Your task to perform on an android device: Search for a dining table on Crate & Barrel Image 0: 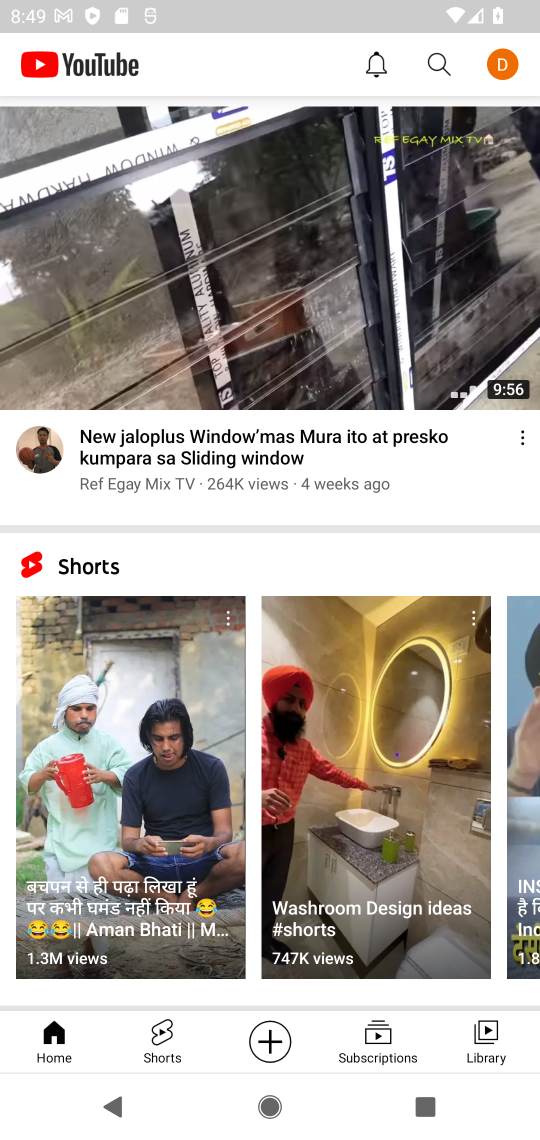
Step 0: press home button
Your task to perform on an android device: Search for a dining table on Crate & Barrel Image 1: 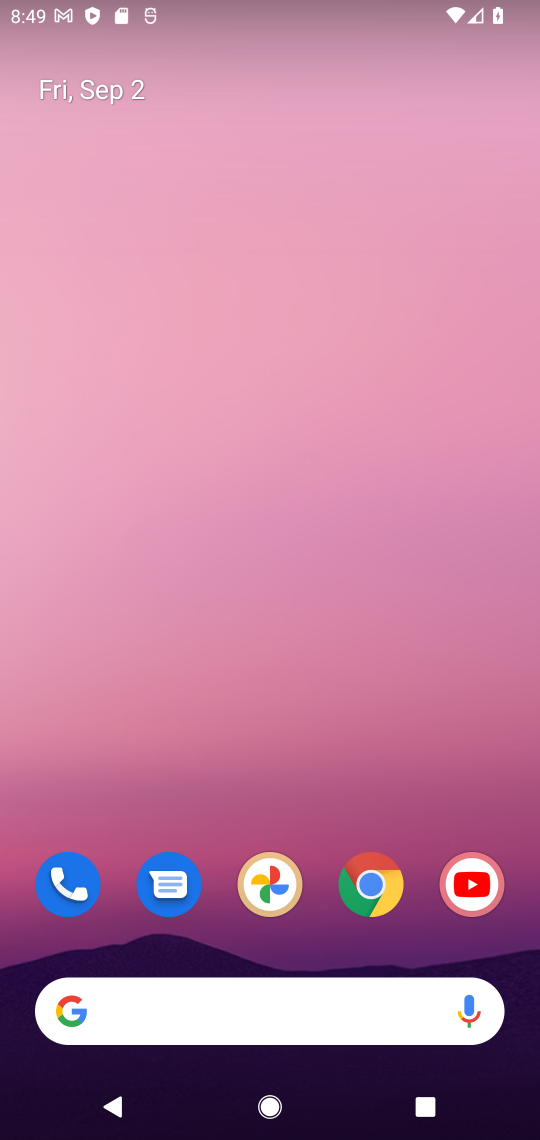
Step 1: click (384, 886)
Your task to perform on an android device: Search for a dining table on Crate & Barrel Image 2: 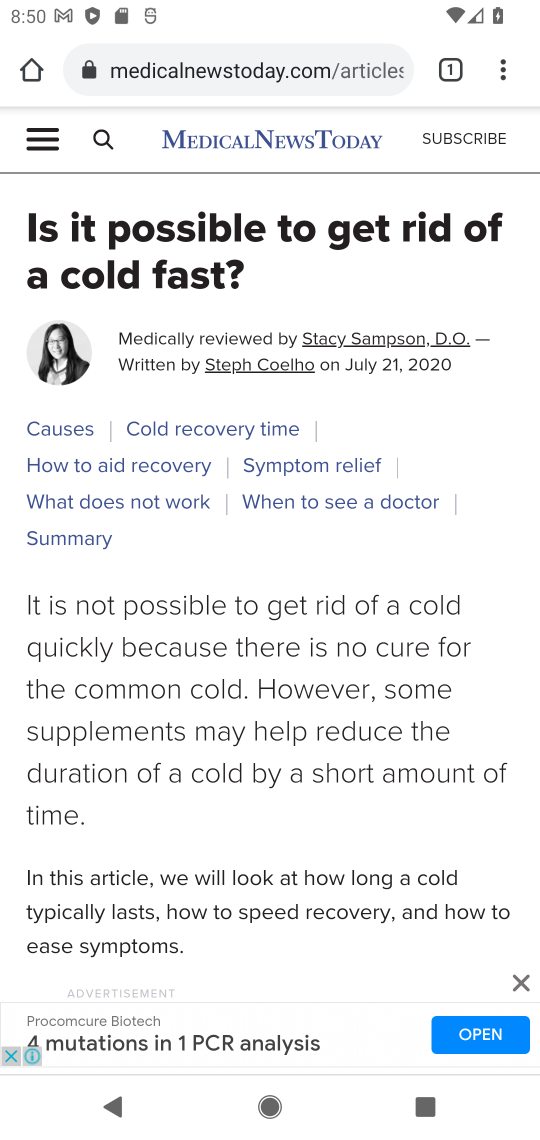
Step 2: click (281, 66)
Your task to perform on an android device: Search for a dining table on Crate & Barrel Image 3: 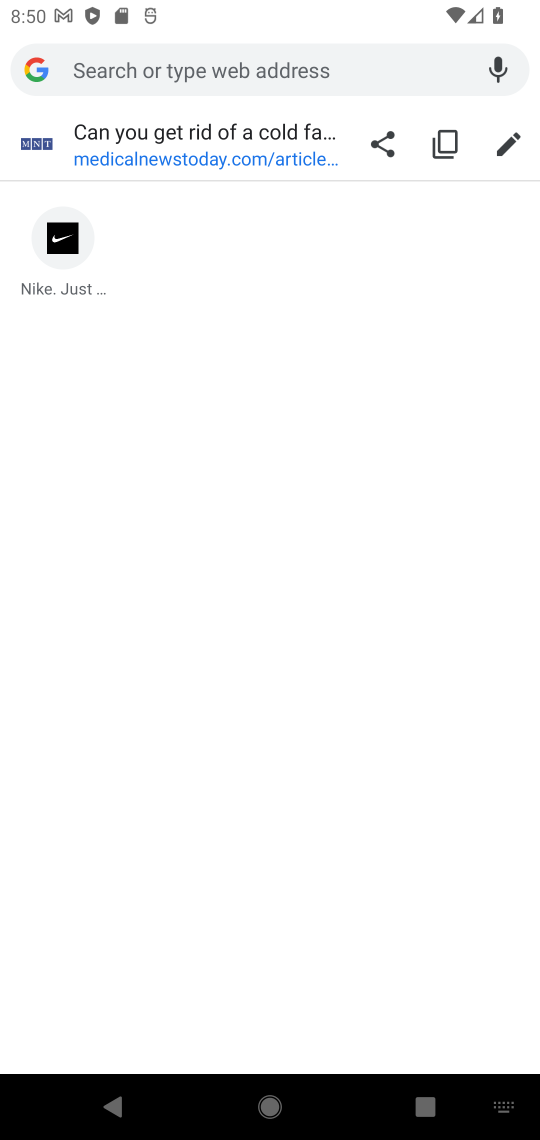
Step 3: type " Crate & Barrel"
Your task to perform on an android device: Search for a dining table on Crate & Barrel Image 4: 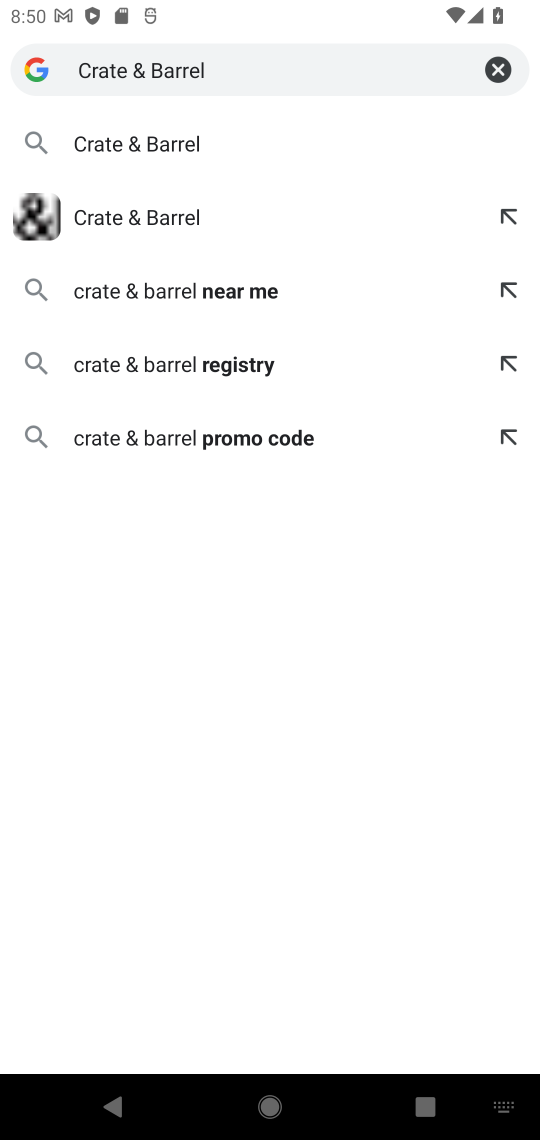
Step 4: click (135, 206)
Your task to perform on an android device: Search for a dining table on Crate & Barrel Image 5: 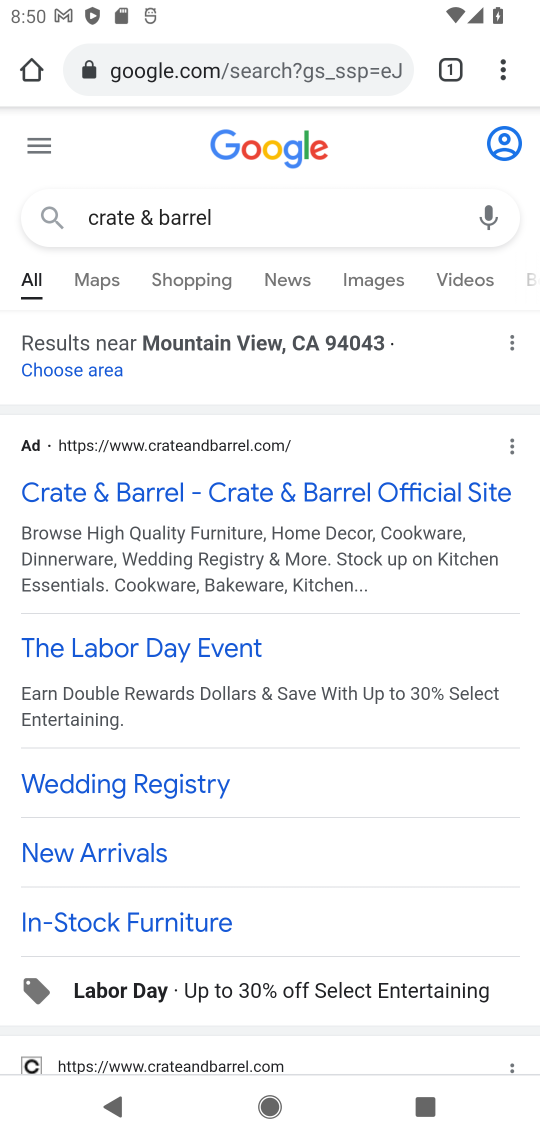
Step 5: click (72, 497)
Your task to perform on an android device: Search for a dining table on Crate & Barrel Image 6: 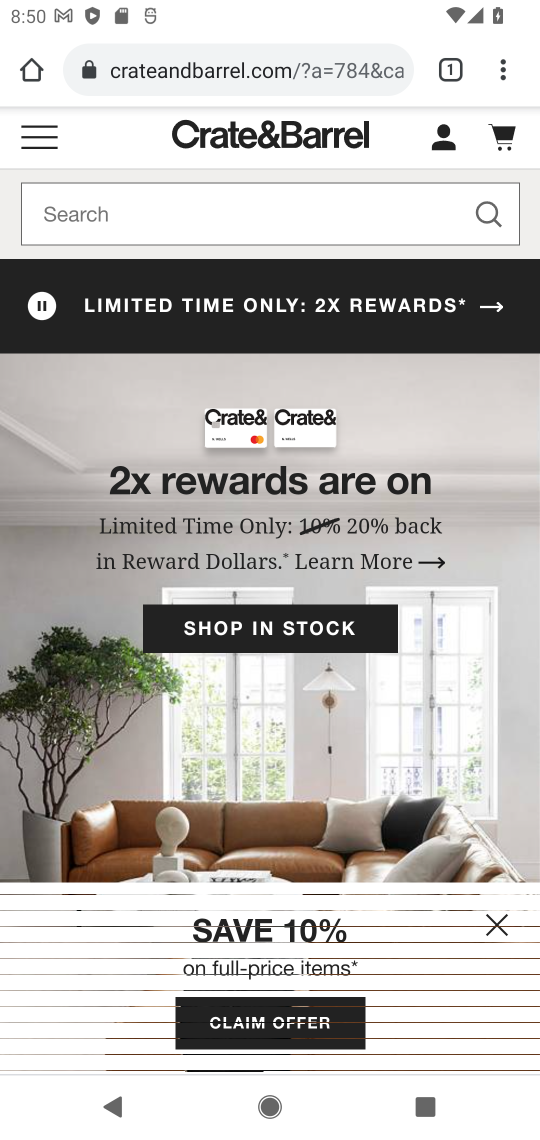
Step 6: click (94, 217)
Your task to perform on an android device: Search for a dining table on Crate & Barrel Image 7: 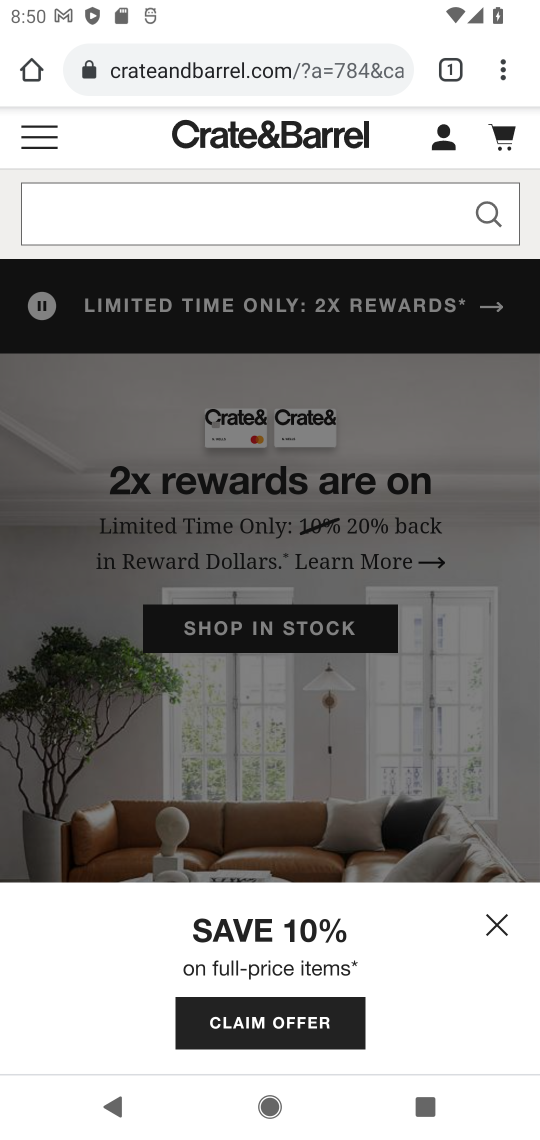
Step 7: click (220, 208)
Your task to perform on an android device: Search for a dining table on Crate & Barrel Image 8: 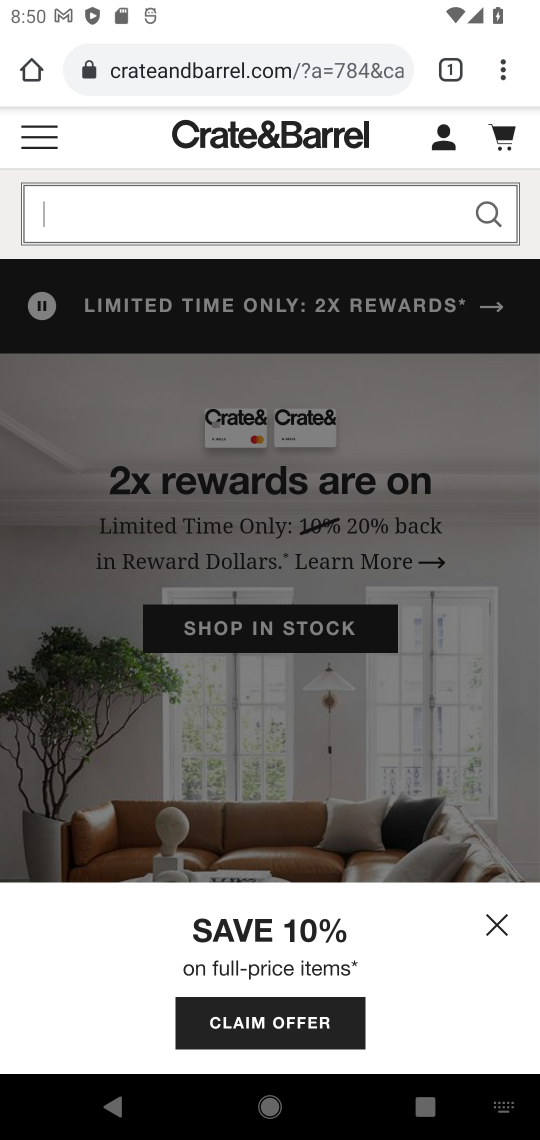
Step 8: type "a dining table "
Your task to perform on an android device: Search for a dining table on Crate & Barrel Image 9: 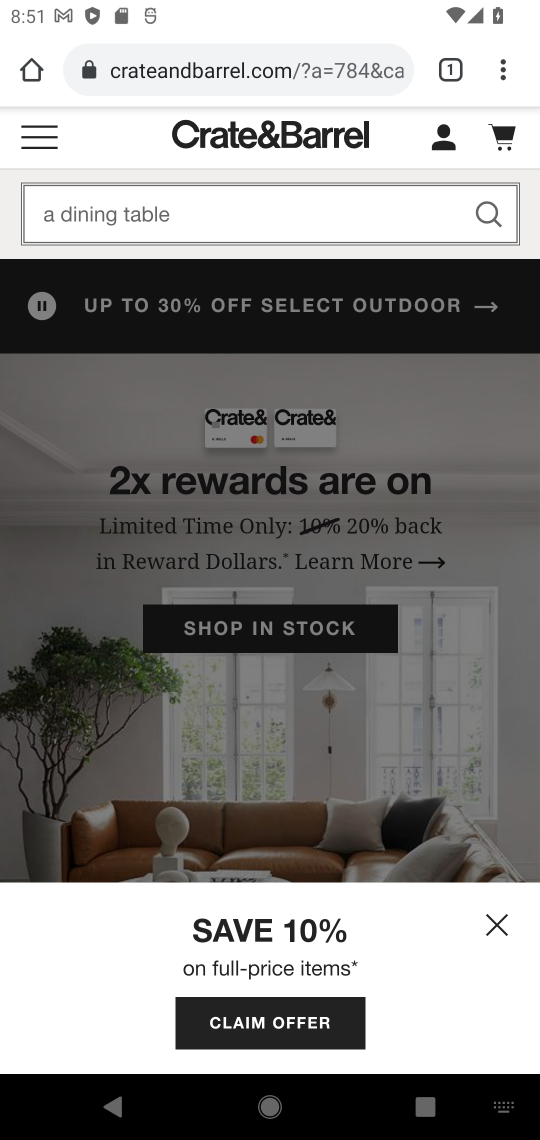
Step 9: click (473, 215)
Your task to perform on an android device: Search for a dining table on Crate & Barrel Image 10: 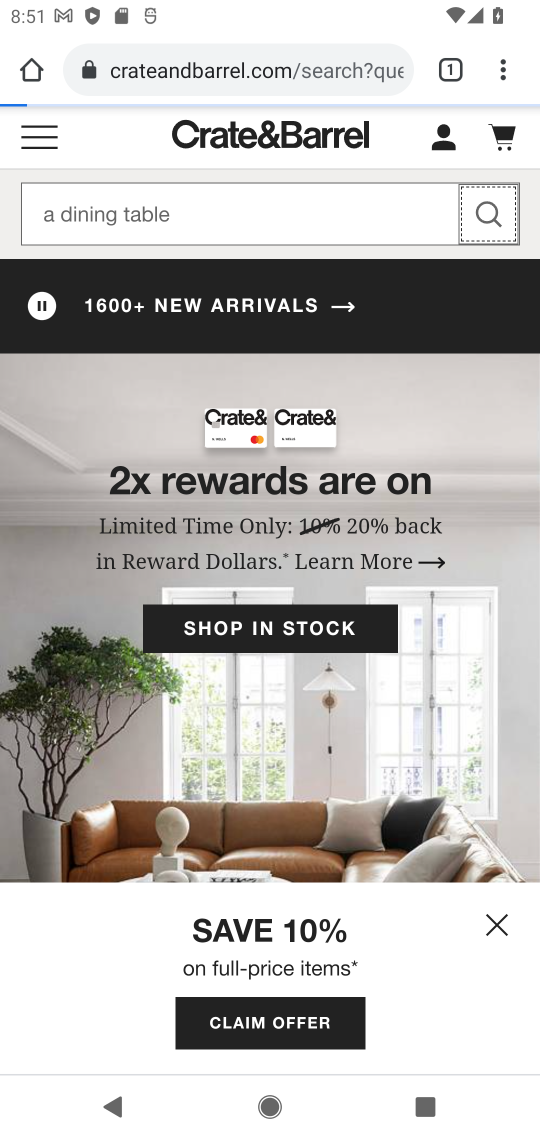
Step 10: click (480, 215)
Your task to perform on an android device: Search for a dining table on Crate & Barrel Image 11: 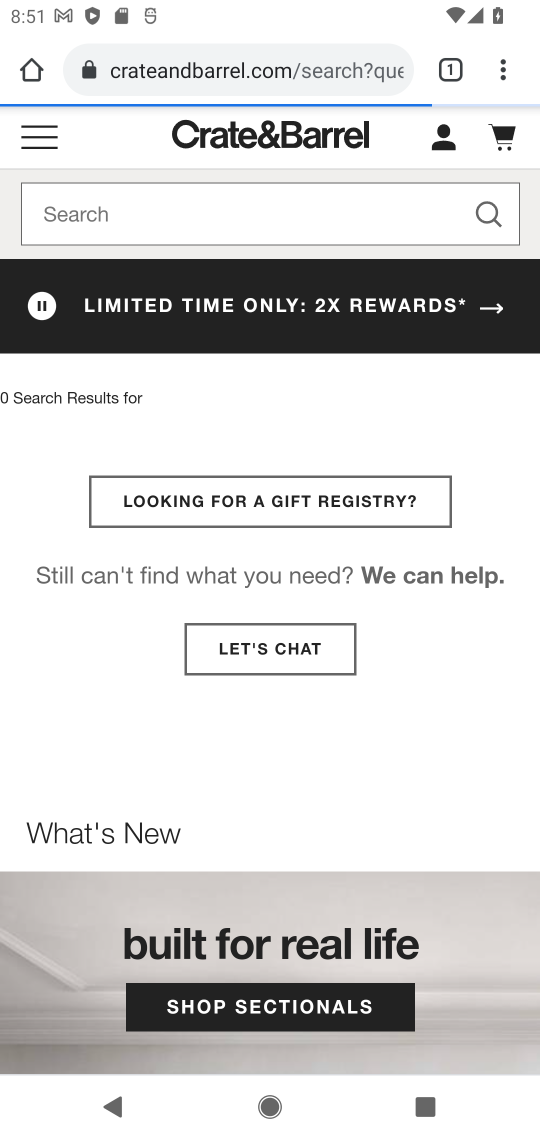
Step 11: drag from (327, 779) to (327, 178)
Your task to perform on an android device: Search for a dining table on Crate & Barrel Image 12: 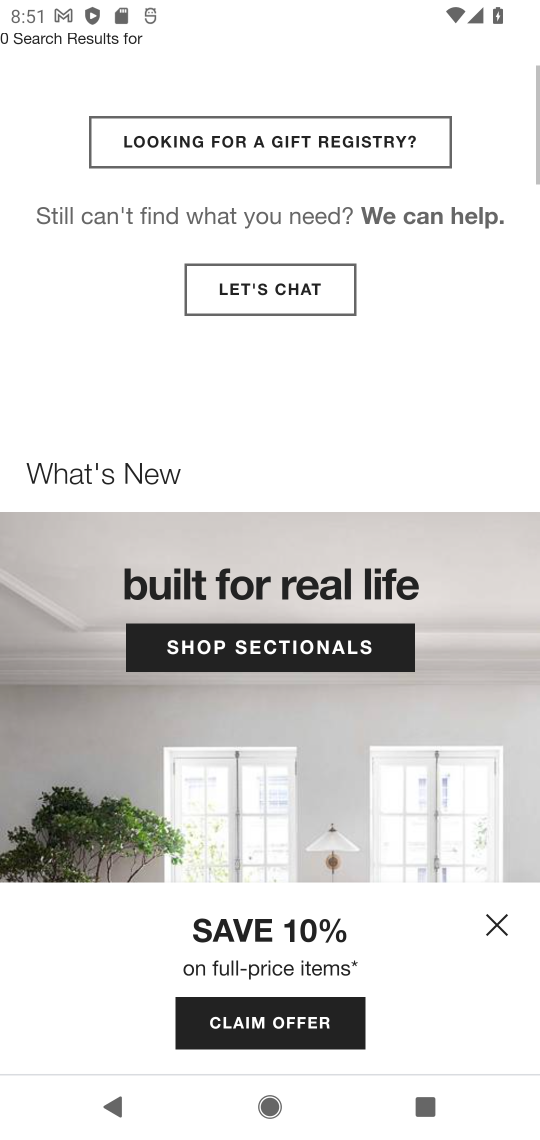
Step 12: drag from (269, 637) to (272, 171)
Your task to perform on an android device: Search for a dining table on Crate & Barrel Image 13: 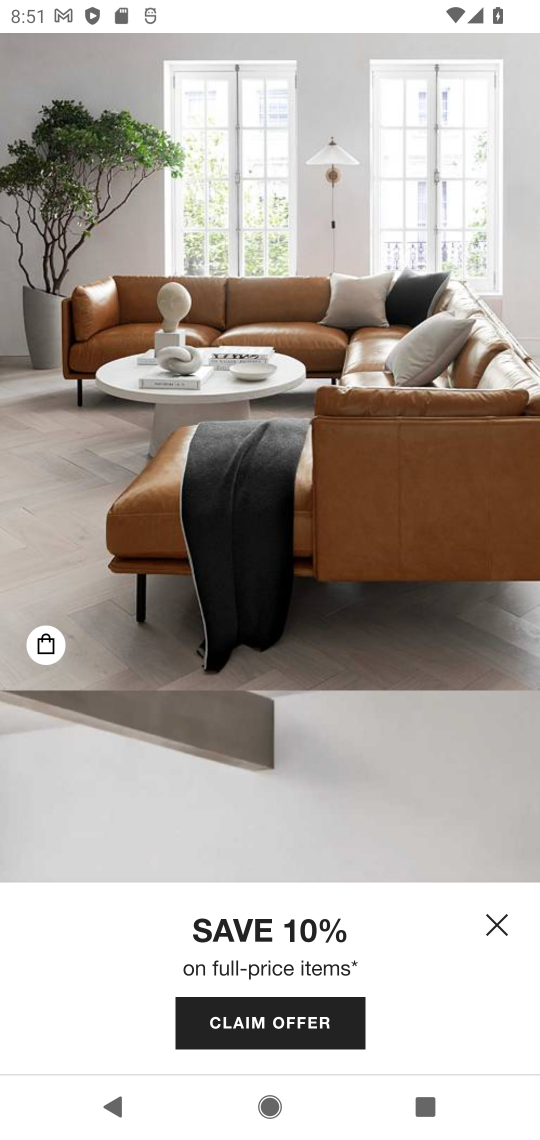
Step 13: click (283, 292)
Your task to perform on an android device: Search for a dining table on Crate & Barrel Image 14: 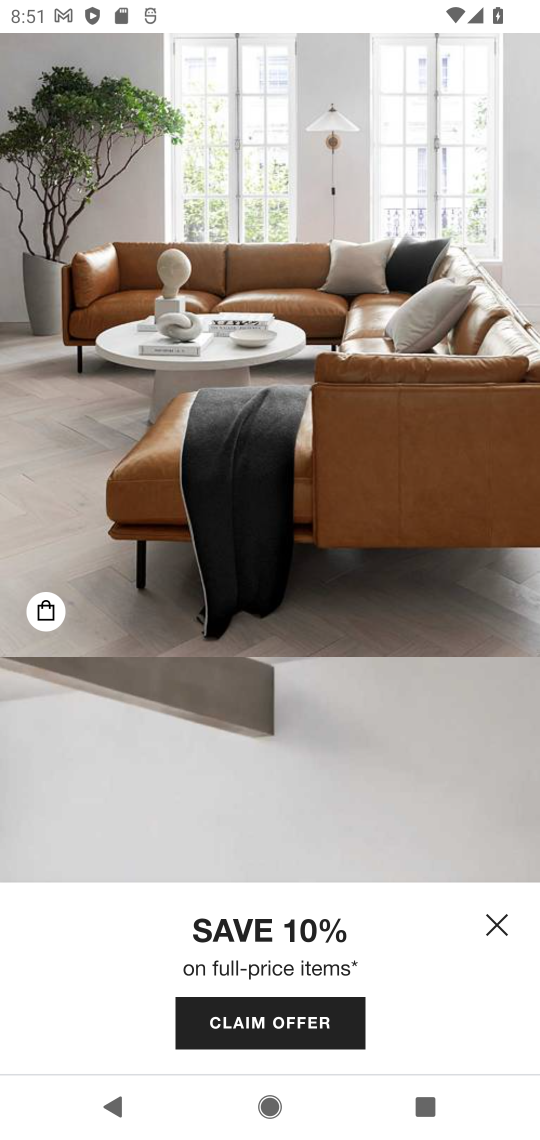
Step 14: drag from (261, 493) to (263, 223)
Your task to perform on an android device: Search for a dining table on Crate & Barrel Image 15: 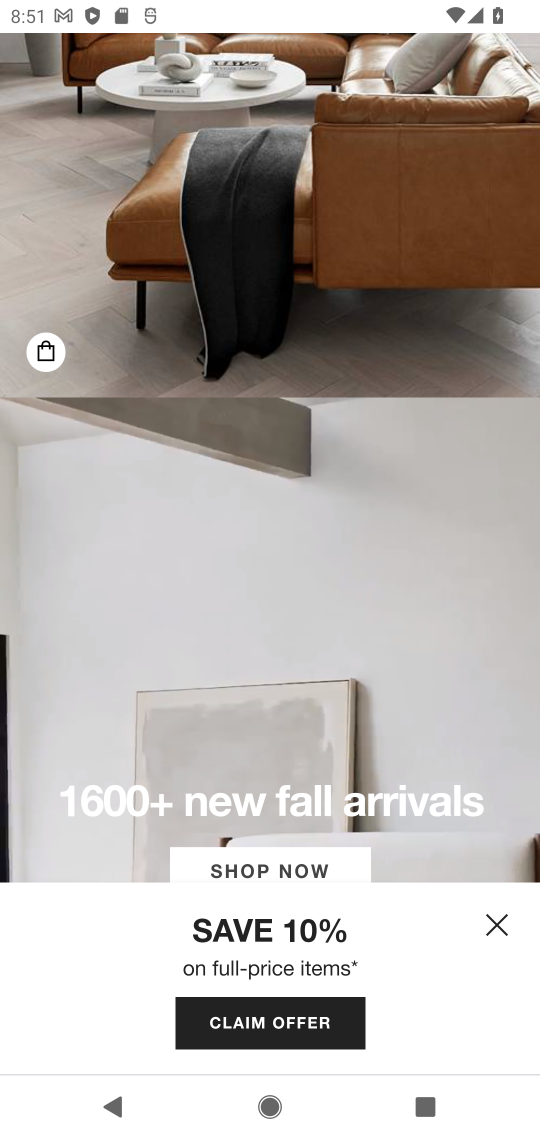
Step 15: drag from (228, 503) to (203, 210)
Your task to perform on an android device: Search for a dining table on Crate & Barrel Image 16: 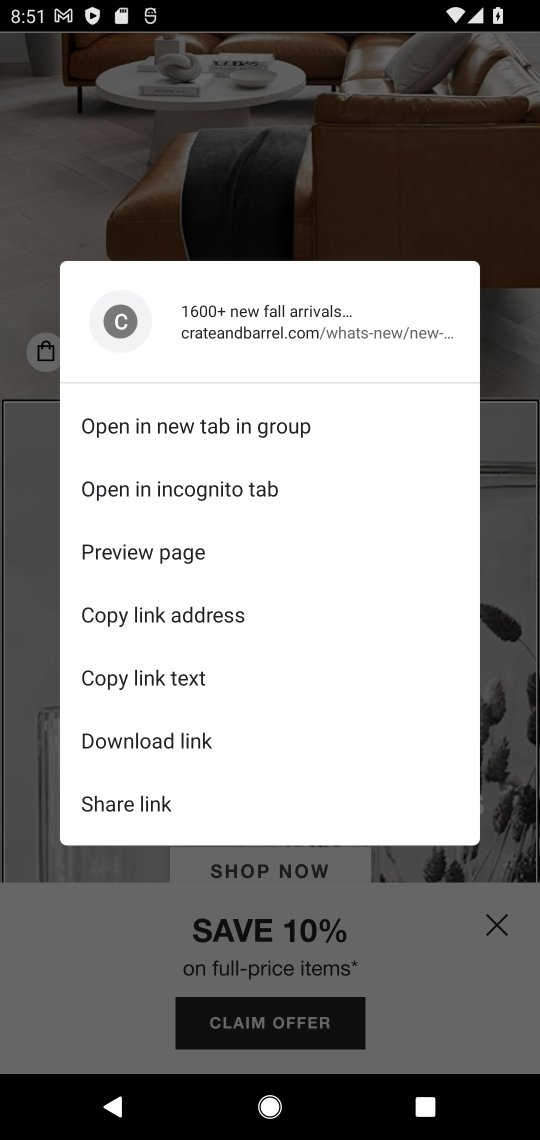
Step 16: click (524, 407)
Your task to perform on an android device: Search for a dining table on Crate & Barrel Image 17: 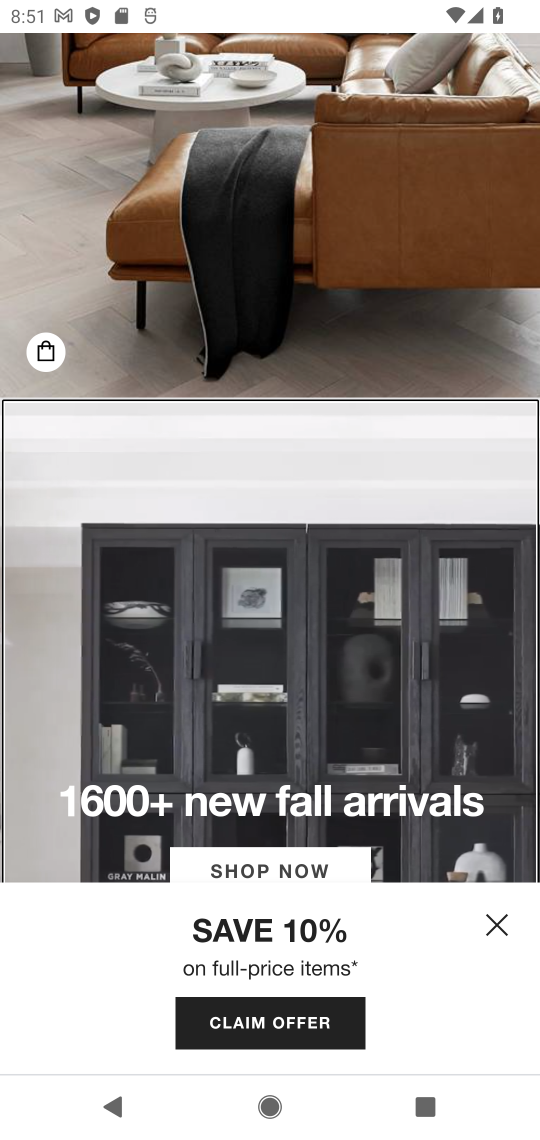
Step 17: drag from (134, 507) to (132, 280)
Your task to perform on an android device: Search for a dining table on Crate & Barrel Image 18: 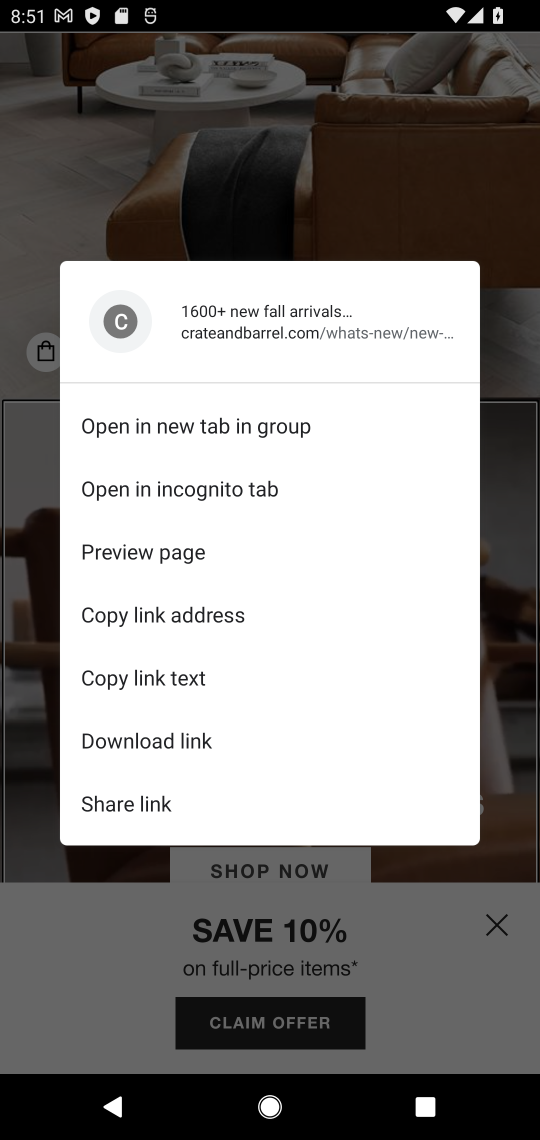
Step 18: click (519, 580)
Your task to perform on an android device: Search for a dining table on Crate & Barrel Image 19: 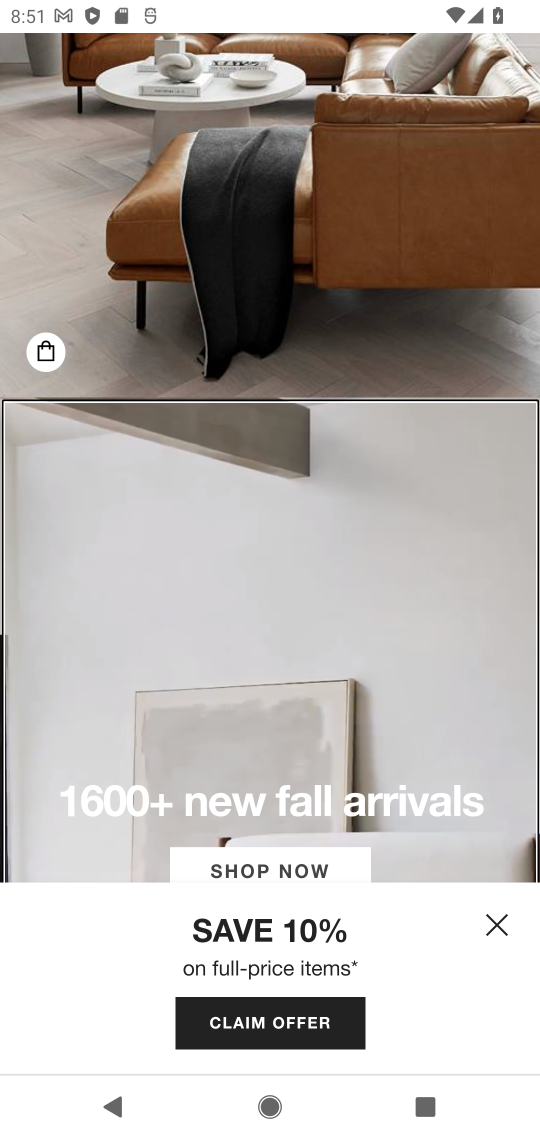
Step 19: drag from (425, 532) to (411, 151)
Your task to perform on an android device: Search for a dining table on Crate & Barrel Image 20: 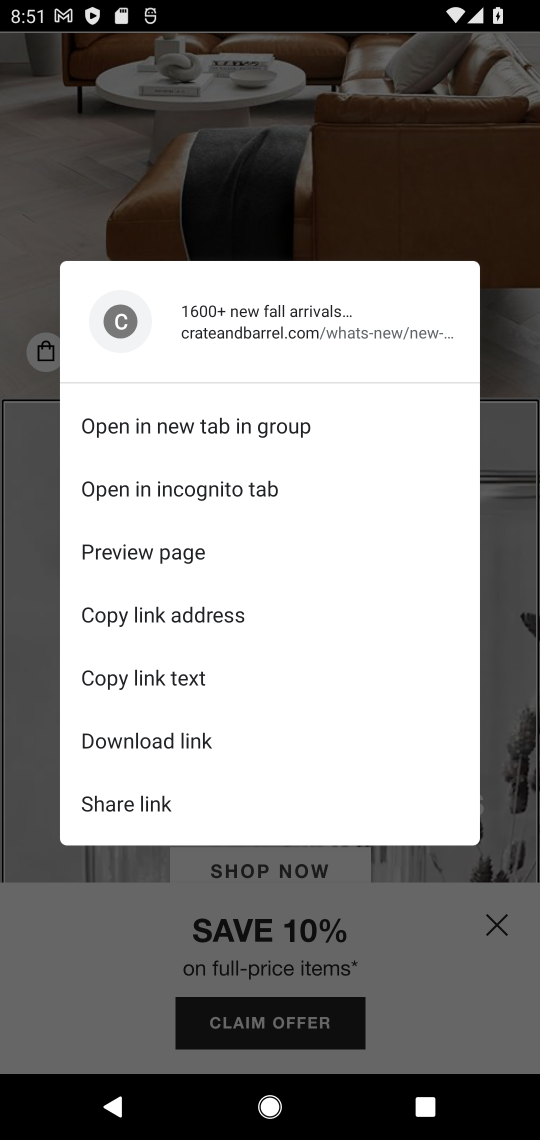
Step 20: click (528, 311)
Your task to perform on an android device: Search for a dining table on Crate & Barrel Image 21: 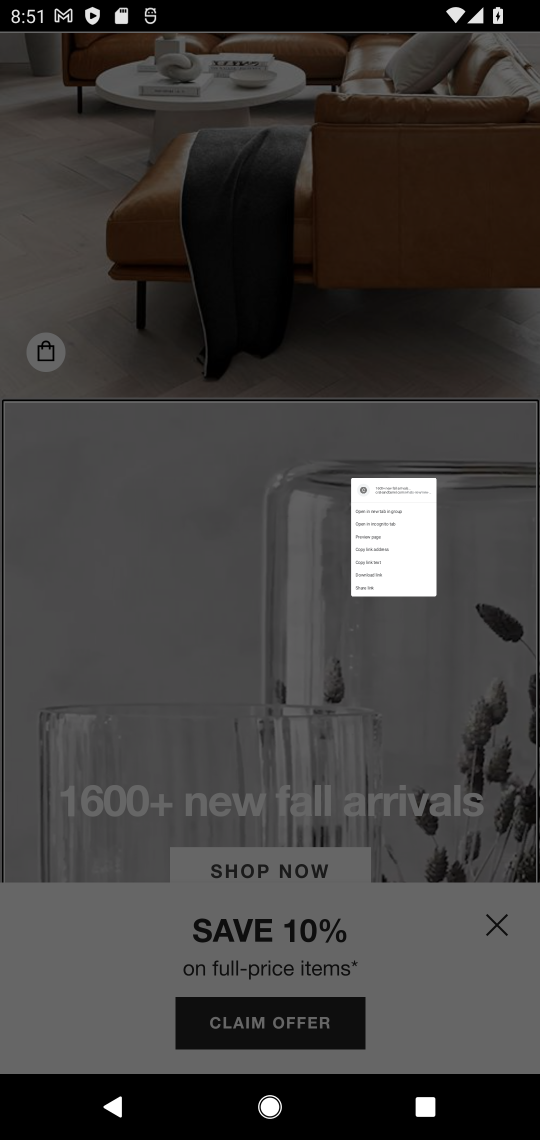
Step 21: drag from (413, 270) to (387, 796)
Your task to perform on an android device: Search for a dining table on Crate & Barrel Image 22: 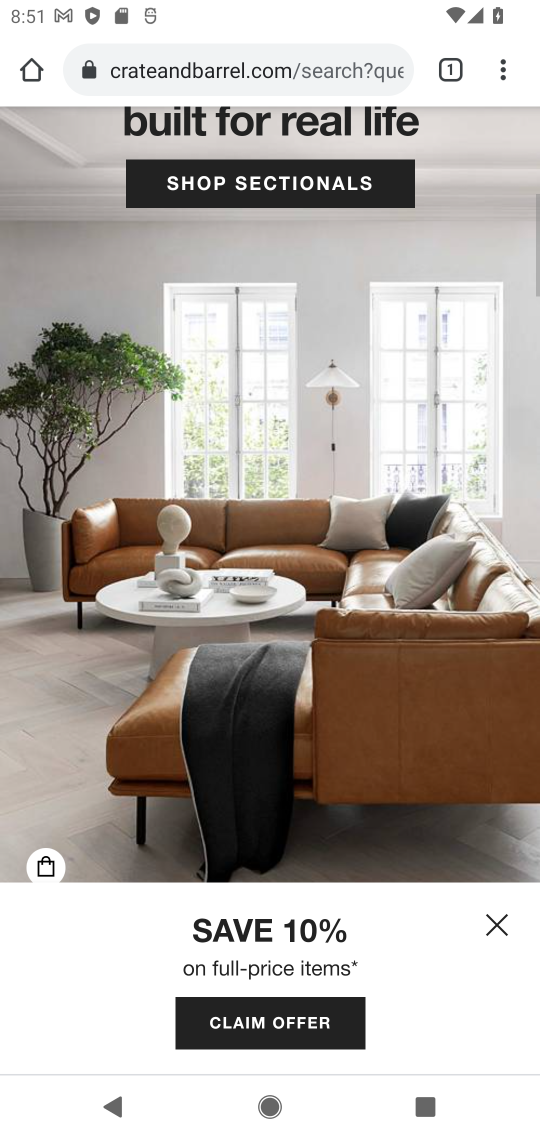
Step 22: click (305, 695)
Your task to perform on an android device: Search for a dining table on Crate & Barrel Image 23: 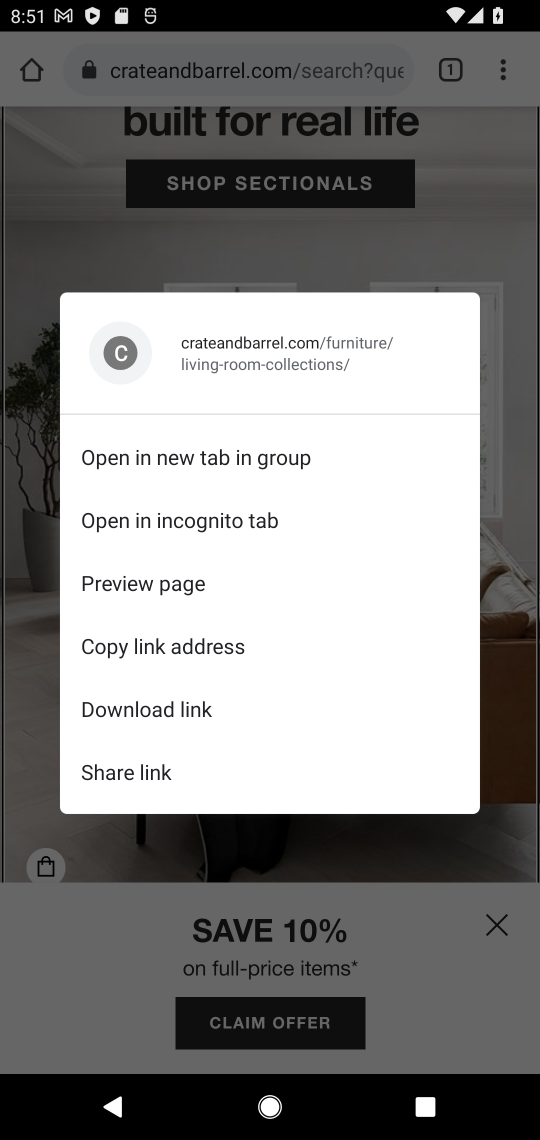
Step 23: drag from (472, 204) to (493, 416)
Your task to perform on an android device: Search for a dining table on Crate & Barrel Image 24: 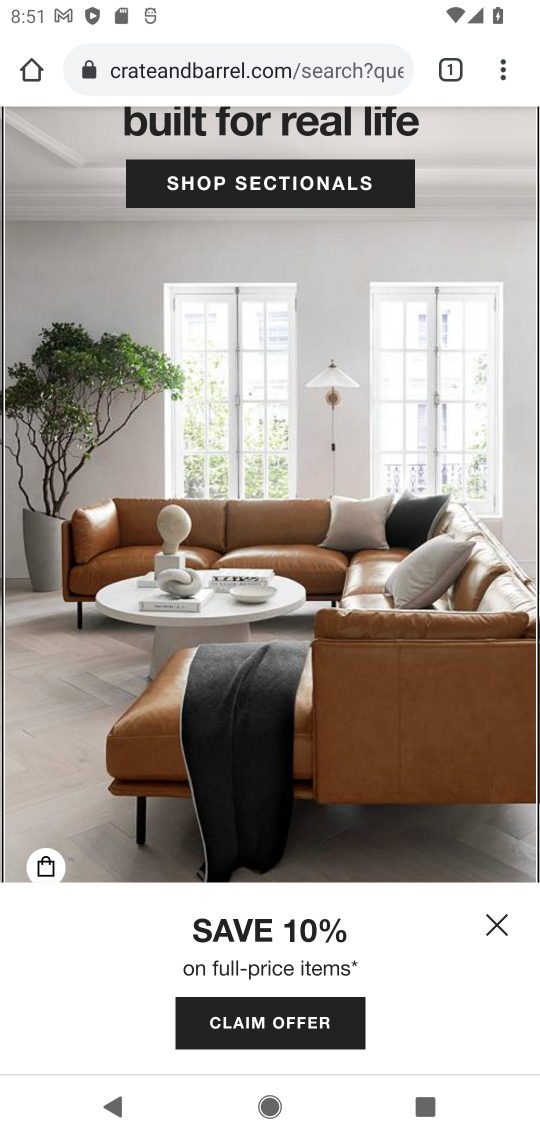
Step 24: drag from (450, 455) to (442, 538)
Your task to perform on an android device: Search for a dining table on Crate & Barrel Image 25: 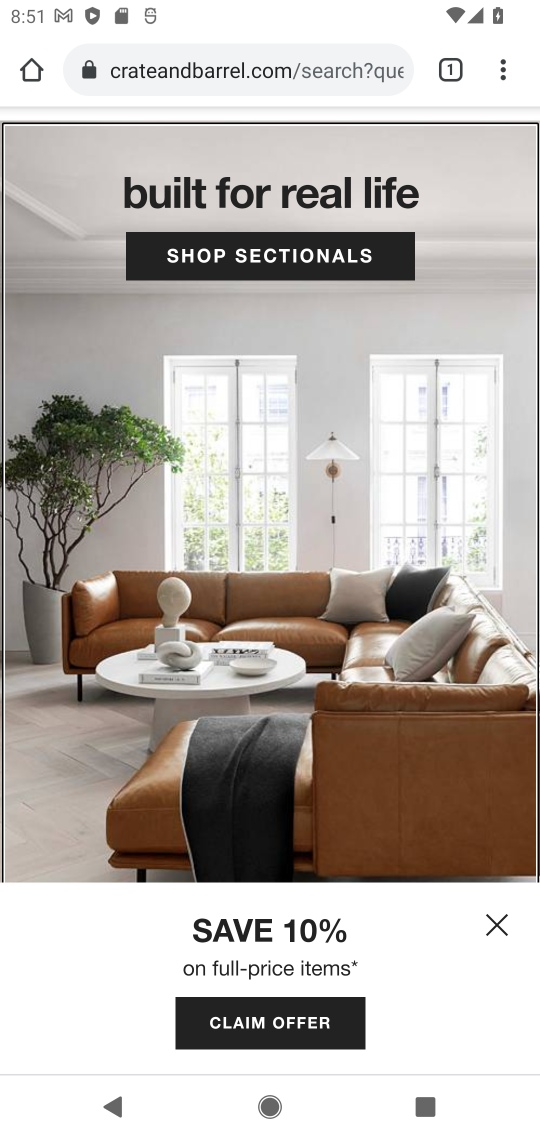
Step 25: drag from (465, 638) to (449, 714)
Your task to perform on an android device: Search for a dining table on Crate & Barrel Image 26: 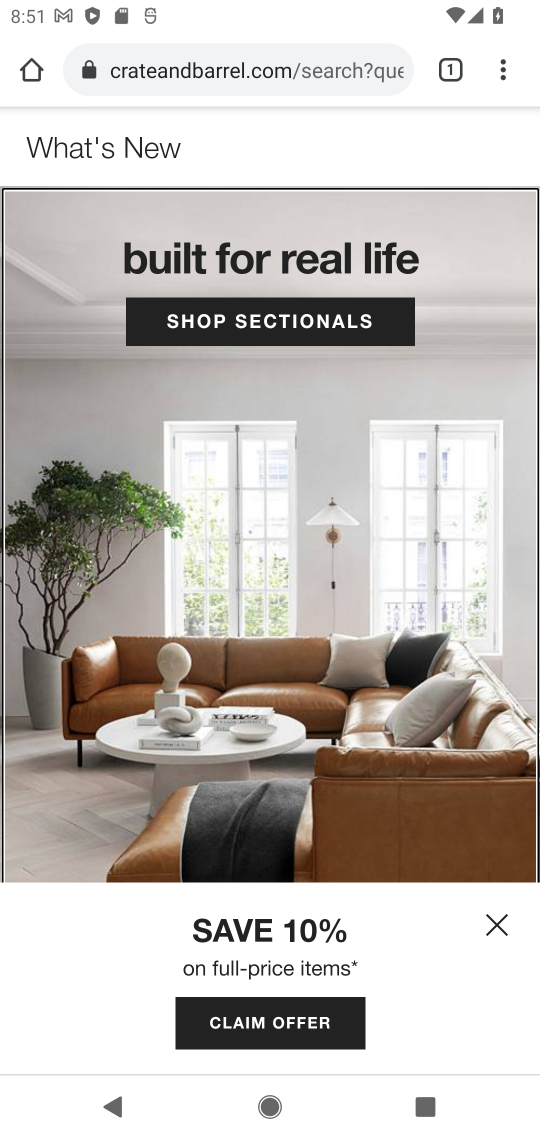
Step 26: drag from (424, 581) to (424, 639)
Your task to perform on an android device: Search for a dining table on Crate & Barrel Image 27: 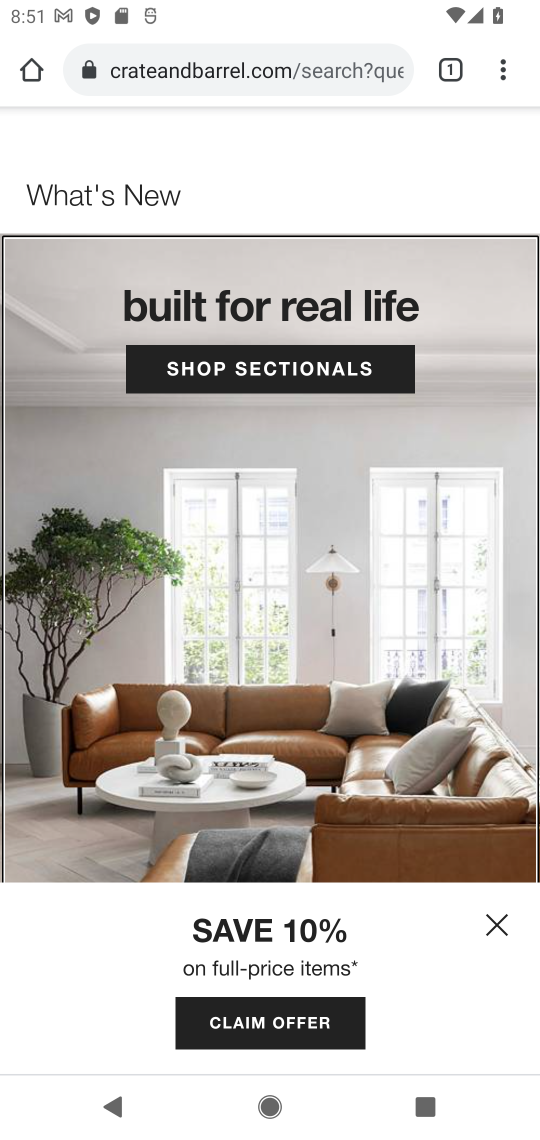
Step 27: click (415, 631)
Your task to perform on an android device: Search for a dining table on Crate & Barrel Image 28: 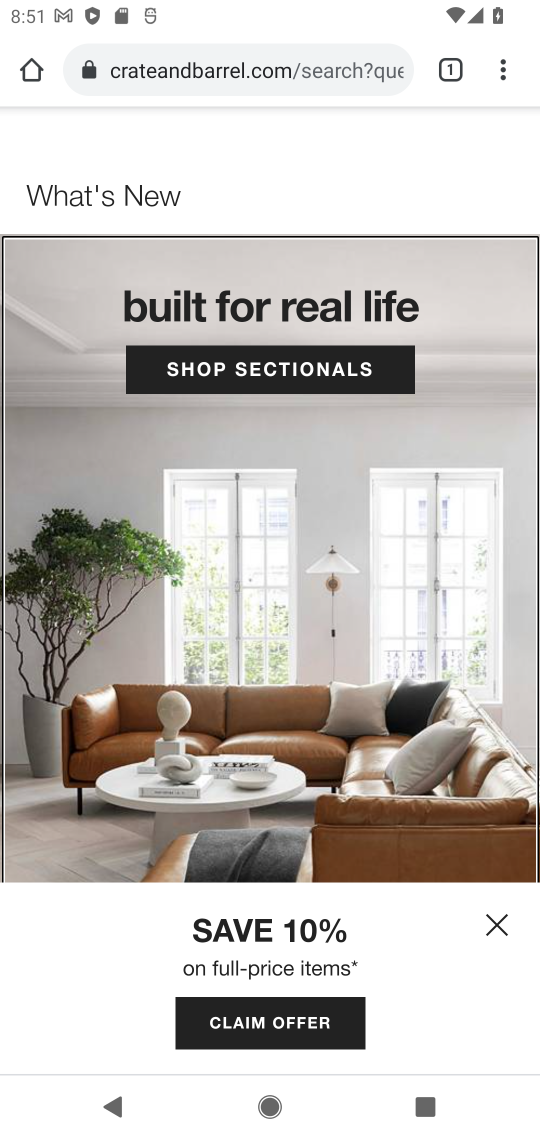
Step 28: drag from (483, 294) to (457, 666)
Your task to perform on an android device: Search for a dining table on Crate & Barrel Image 29: 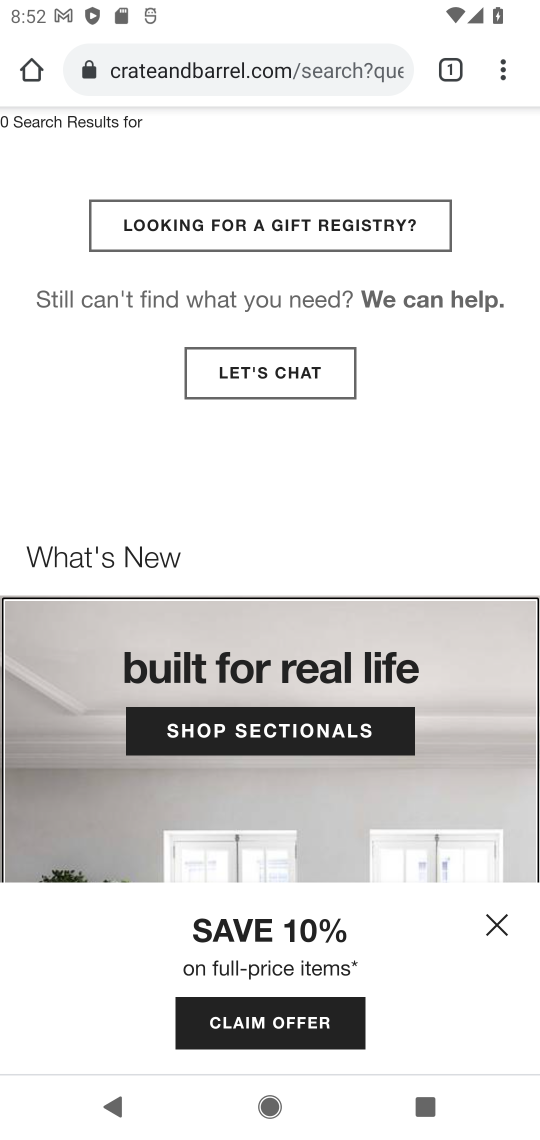
Step 29: drag from (471, 511) to (443, 795)
Your task to perform on an android device: Search for a dining table on Crate & Barrel Image 30: 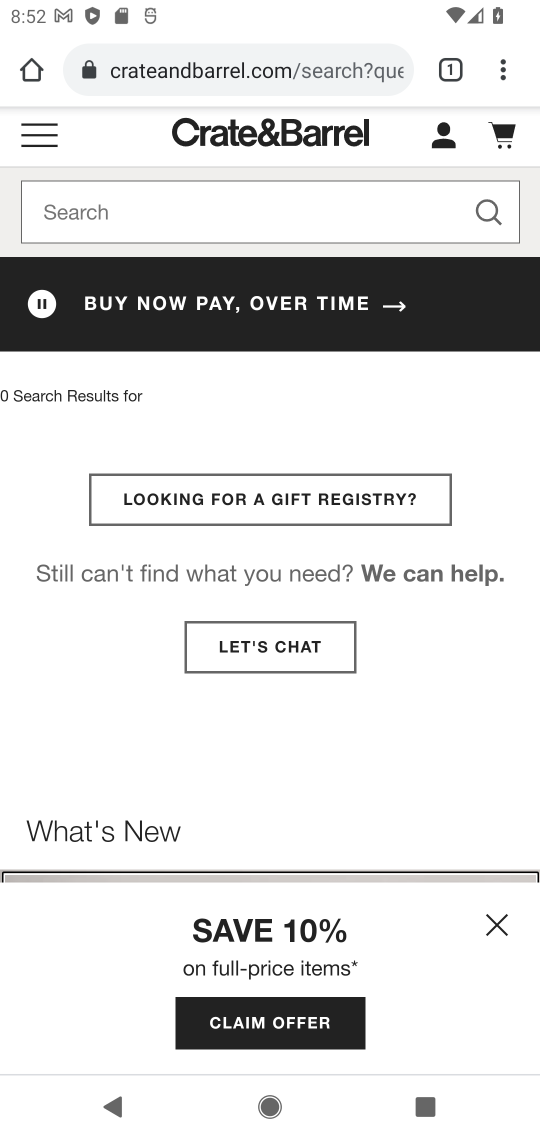
Step 30: click (130, 226)
Your task to perform on an android device: Search for a dining table on Crate & Barrel Image 31: 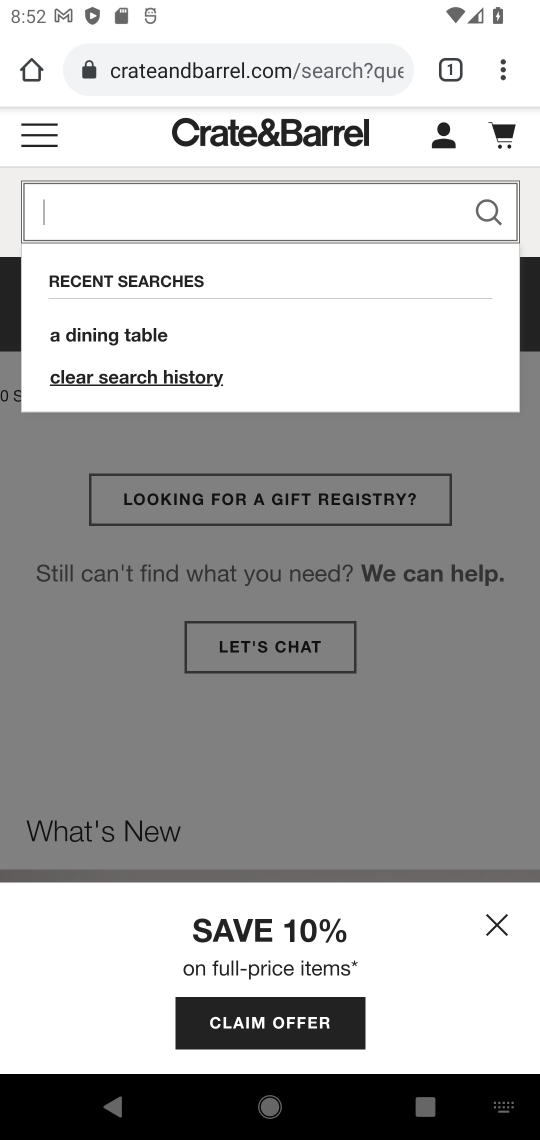
Step 31: click (140, 346)
Your task to perform on an android device: Search for a dining table on Crate & Barrel Image 32: 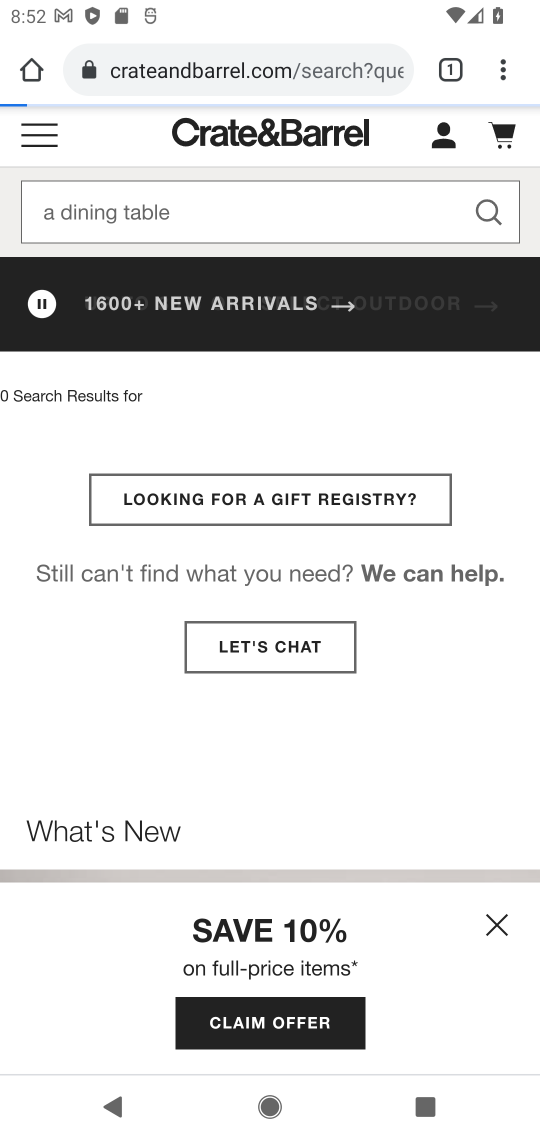
Step 32: click (480, 215)
Your task to perform on an android device: Search for a dining table on Crate & Barrel Image 33: 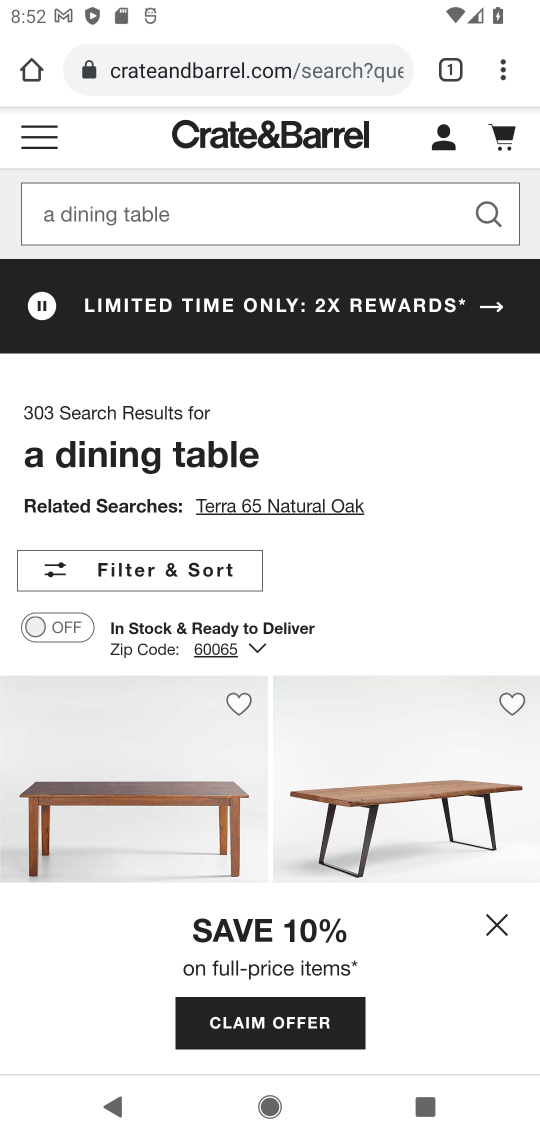
Step 33: task complete